Your task to perform on an android device: Open Wikipedia Image 0: 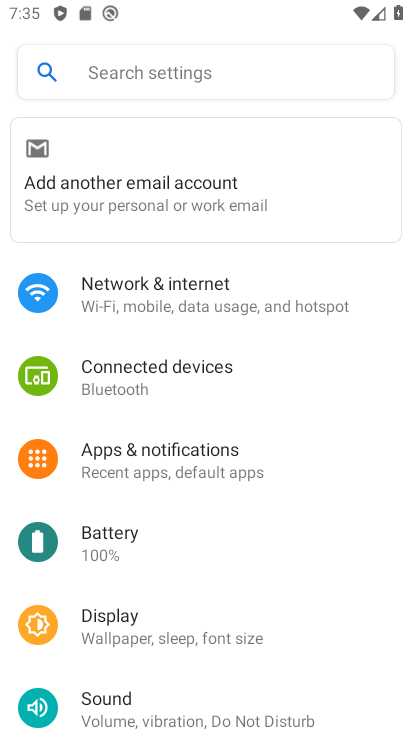
Step 0: press home button
Your task to perform on an android device: Open Wikipedia Image 1: 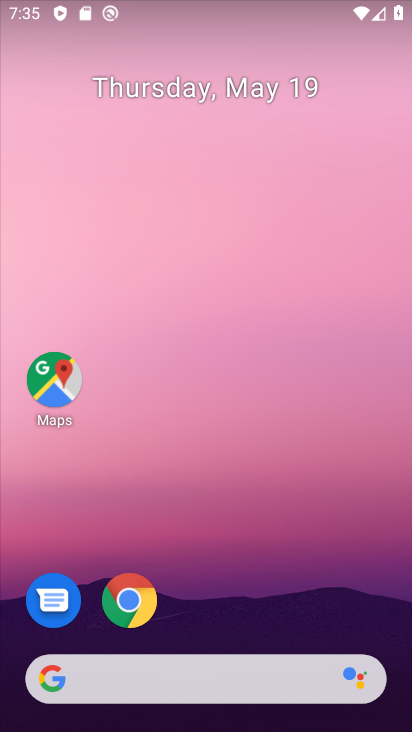
Step 1: click (148, 603)
Your task to perform on an android device: Open Wikipedia Image 2: 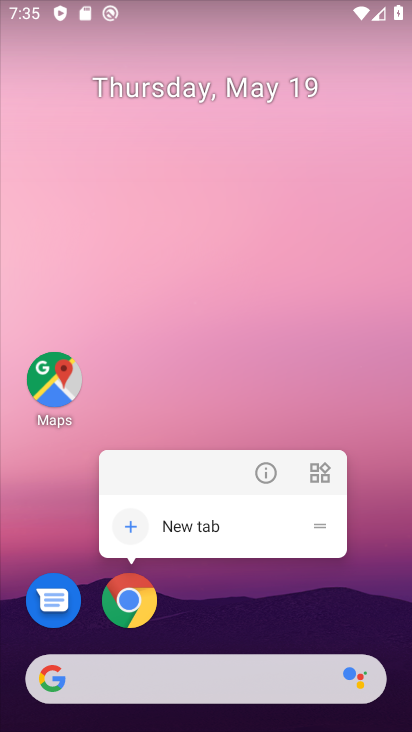
Step 2: click (128, 608)
Your task to perform on an android device: Open Wikipedia Image 3: 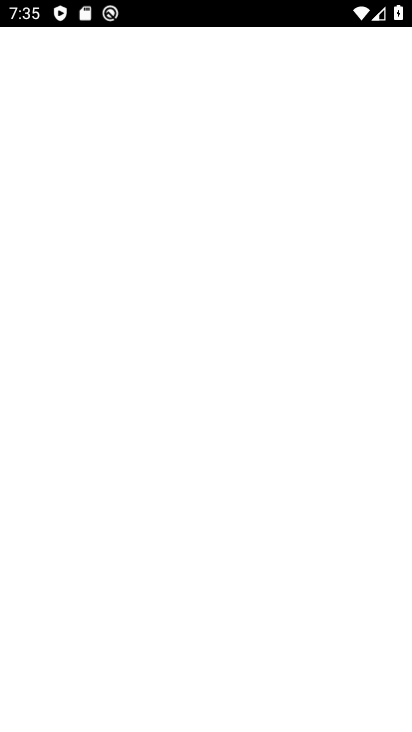
Step 3: click (128, 608)
Your task to perform on an android device: Open Wikipedia Image 4: 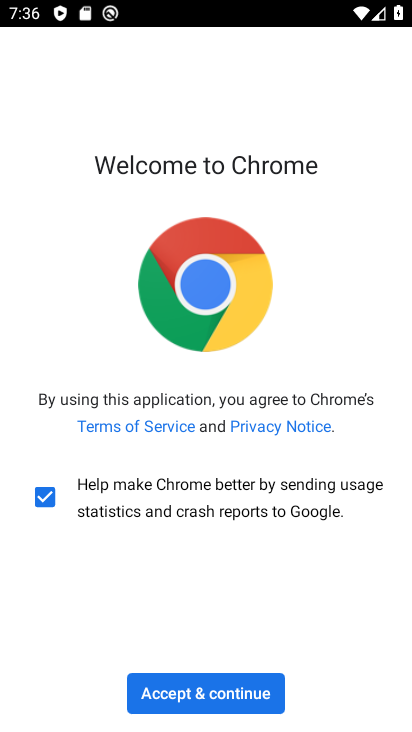
Step 4: click (207, 704)
Your task to perform on an android device: Open Wikipedia Image 5: 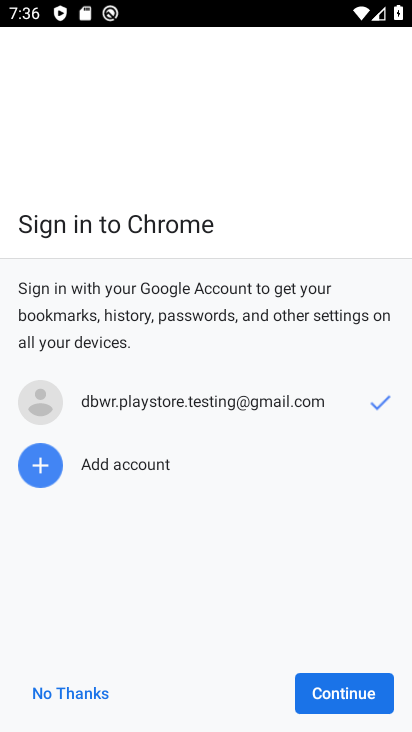
Step 5: click (357, 704)
Your task to perform on an android device: Open Wikipedia Image 6: 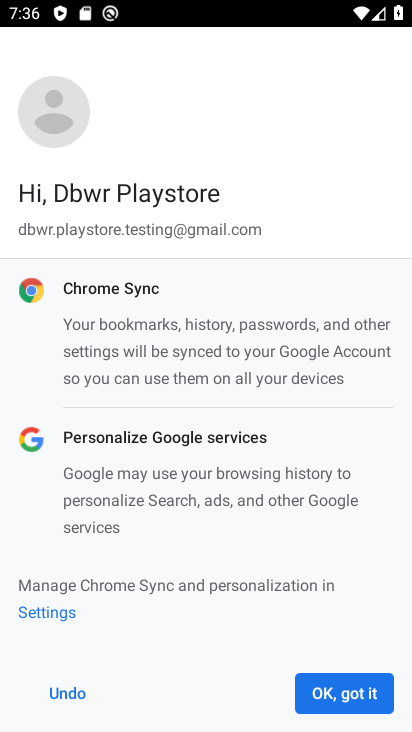
Step 6: click (357, 704)
Your task to perform on an android device: Open Wikipedia Image 7: 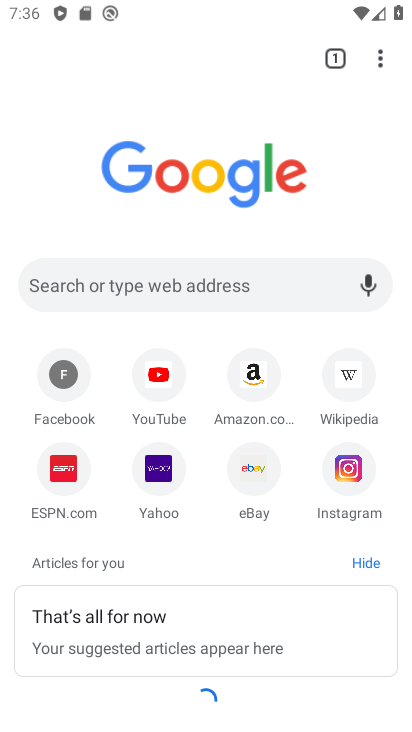
Step 7: click (384, 55)
Your task to perform on an android device: Open Wikipedia Image 8: 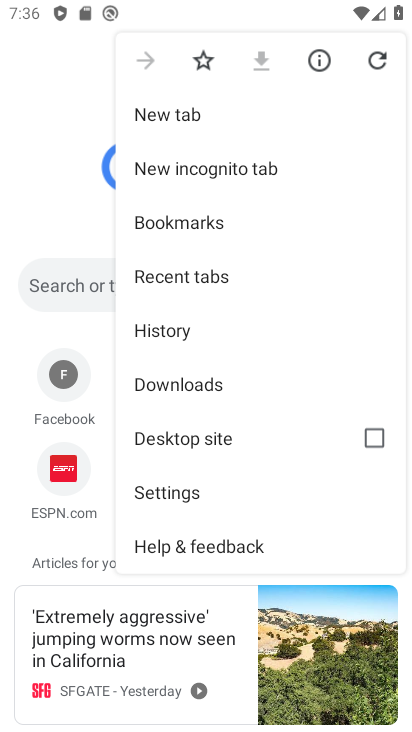
Step 8: click (23, 338)
Your task to perform on an android device: Open Wikipedia Image 9: 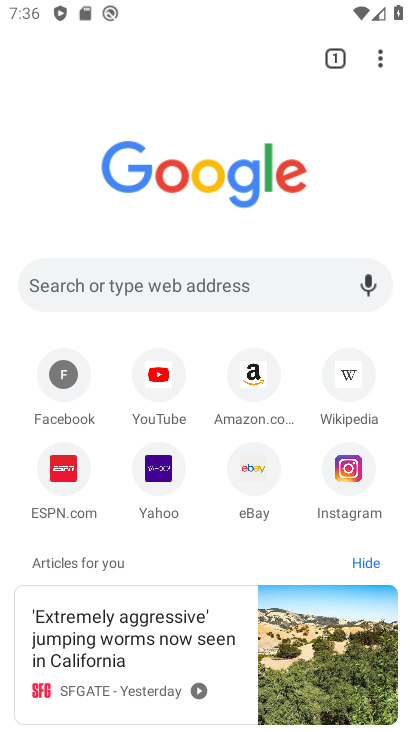
Step 9: click (360, 374)
Your task to perform on an android device: Open Wikipedia Image 10: 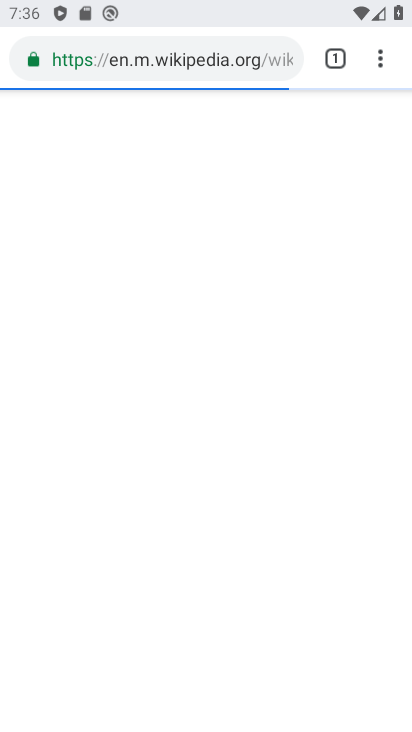
Step 10: task complete